Your task to perform on an android device: add a label to a message in the gmail app Image 0: 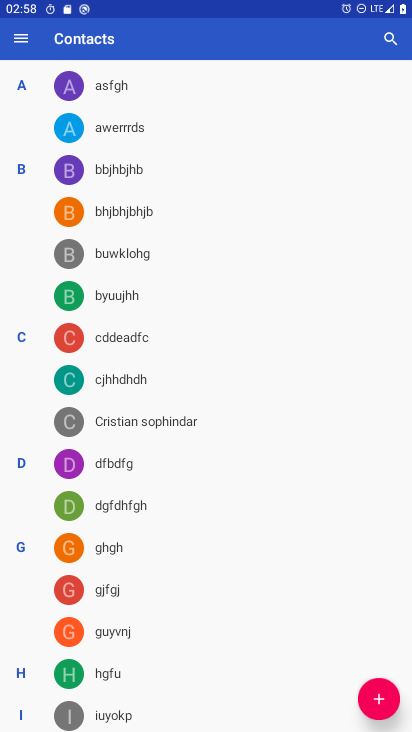
Step 0: press home button
Your task to perform on an android device: add a label to a message in the gmail app Image 1: 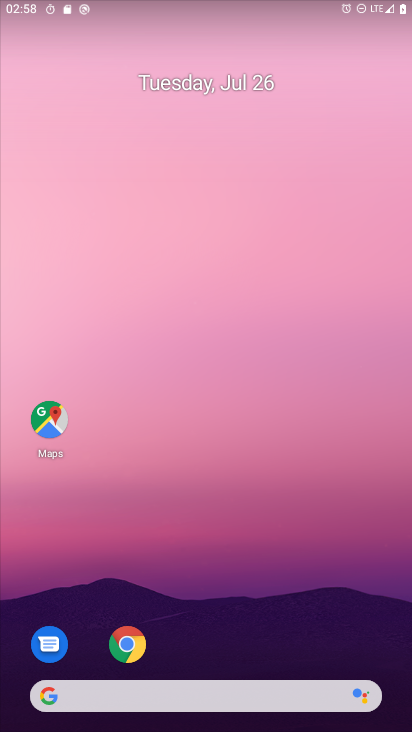
Step 1: drag from (256, 667) to (261, 34)
Your task to perform on an android device: add a label to a message in the gmail app Image 2: 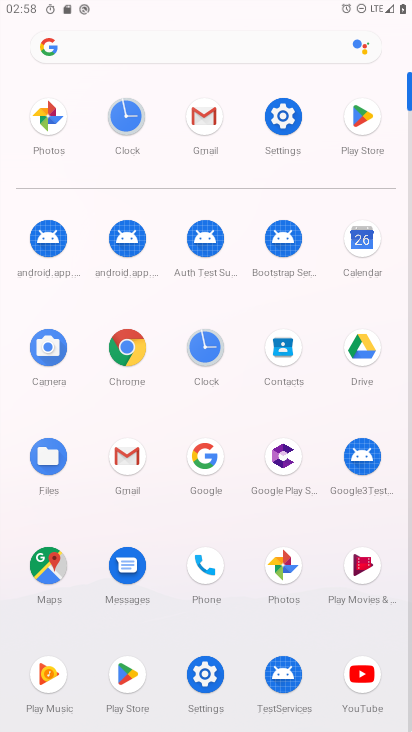
Step 2: click (205, 119)
Your task to perform on an android device: add a label to a message in the gmail app Image 3: 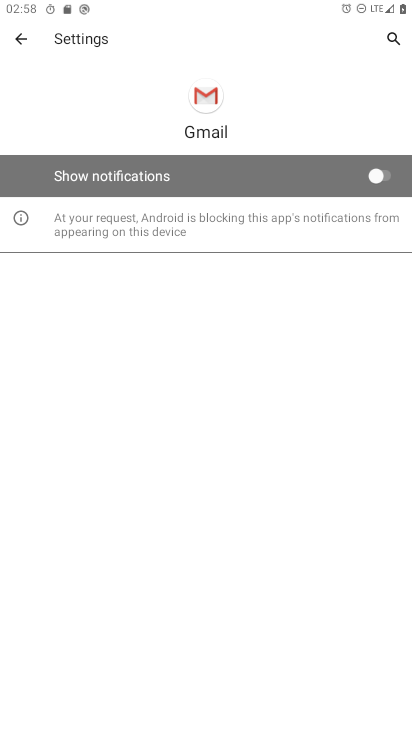
Step 3: click (23, 36)
Your task to perform on an android device: add a label to a message in the gmail app Image 4: 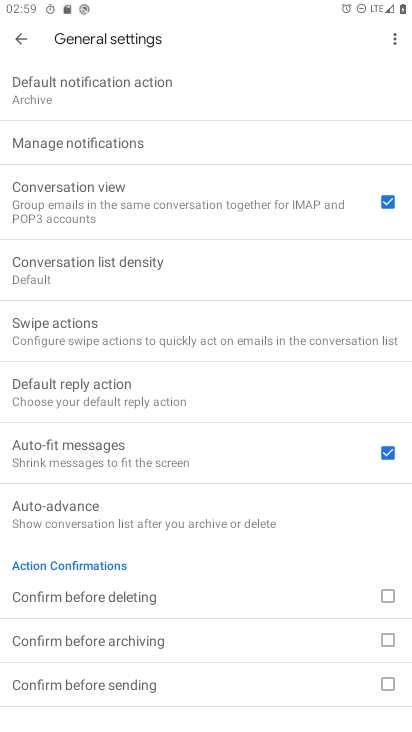
Step 4: click (20, 46)
Your task to perform on an android device: add a label to a message in the gmail app Image 5: 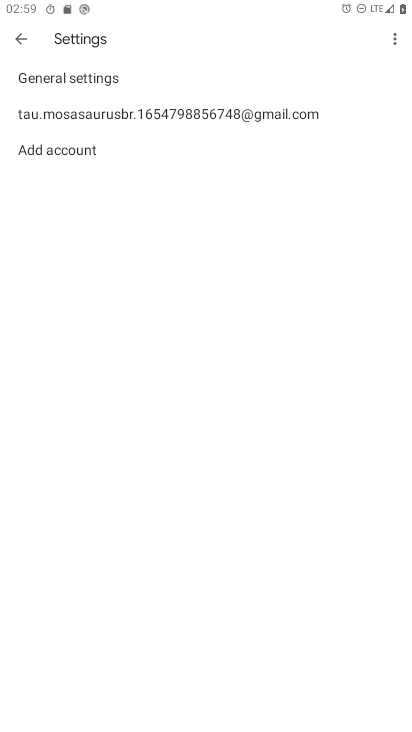
Step 5: click (20, 46)
Your task to perform on an android device: add a label to a message in the gmail app Image 6: 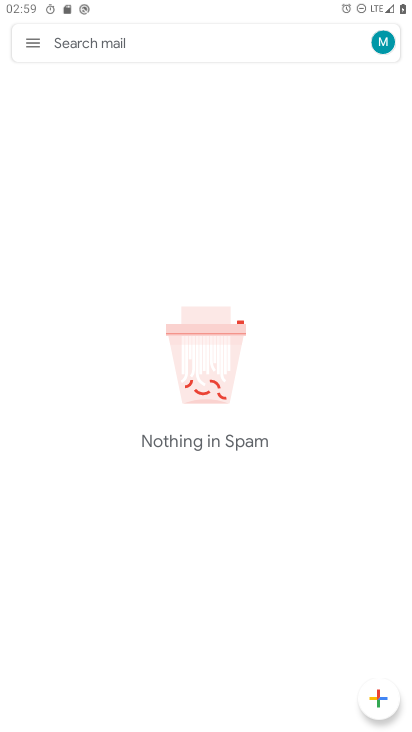
Step 6: click (32, 42)
Your task to perform on an android device: add a label to a message in the gmail app Image 7: 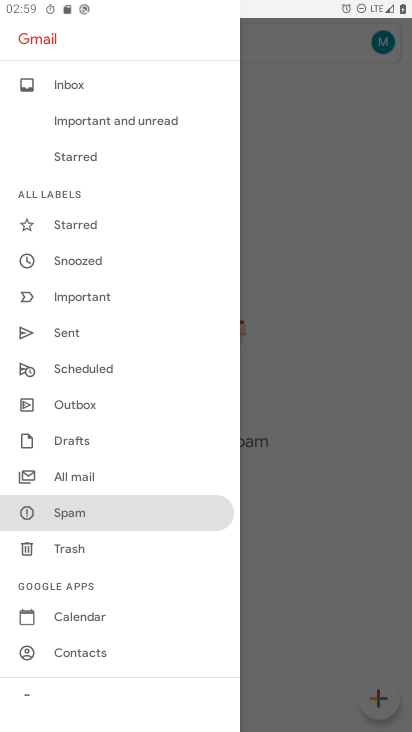
Step 7: click (78, 482)
Your task to perform on an android device: add a label to a message in the gmail app Image 8: 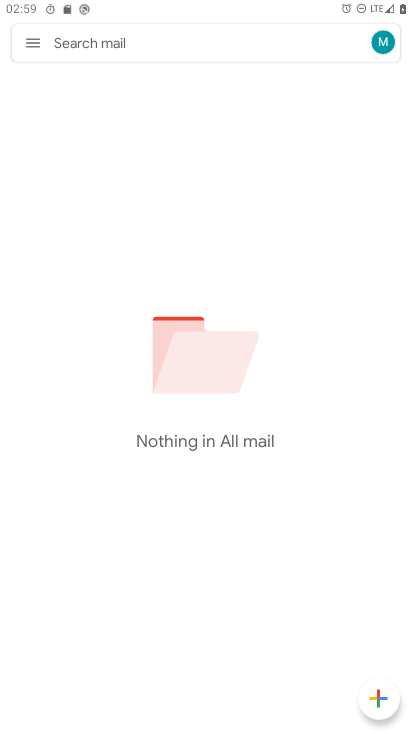
Step 8: task complete